Your task to perform on an android device: Is it going to rain today? Image 0: 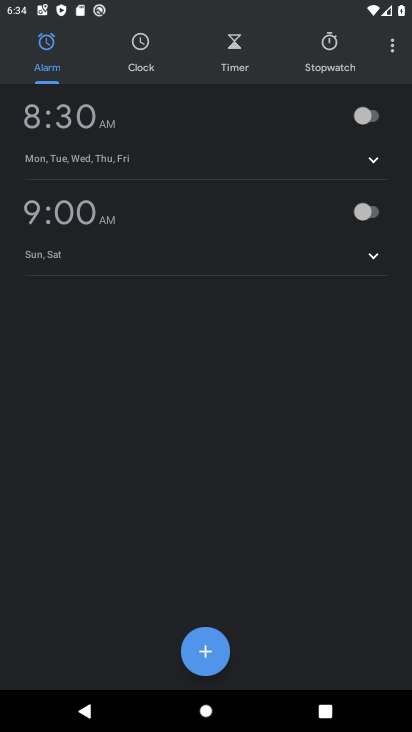
Step 0: press home button
Your task to perform on an android device: Is it going to rain today? Image 1: 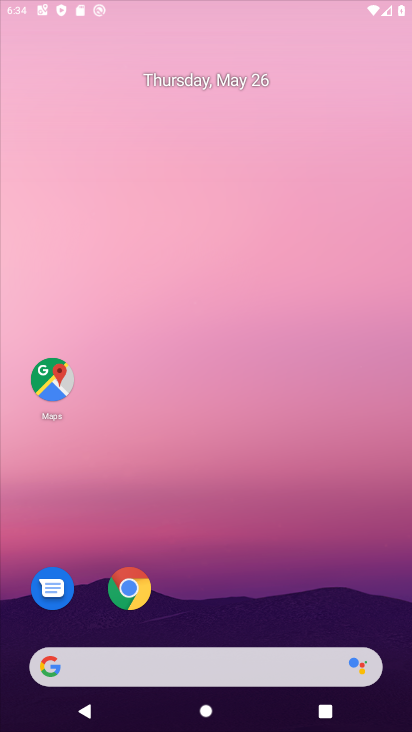
Step 1: drag from (368, 635) to (277, 14)
Your task to perform on an android device: Is it going to rain today? Image 2: 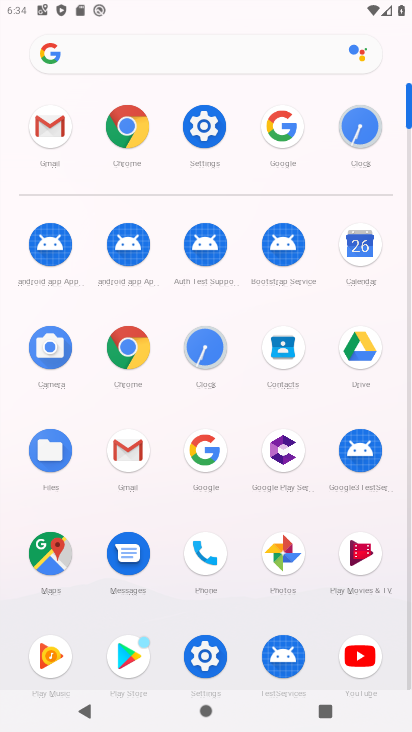
Step 2: click (201, 464)
Your task to perform on an android device: Is it going to rain today? Image 3: 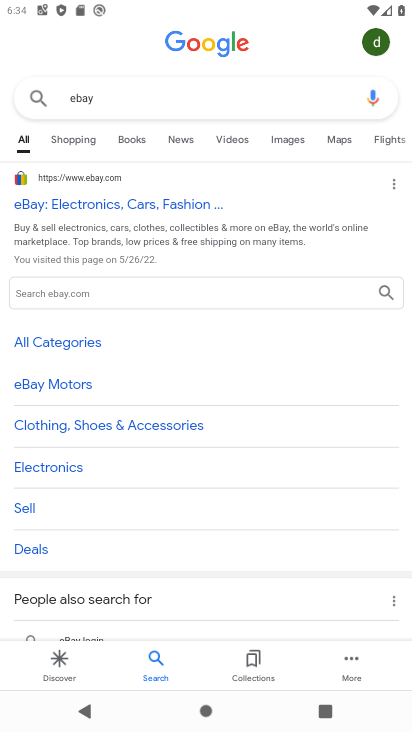
Step 3: press back button
Your task to perform on an android device: Is it going to rain today? Image 4: 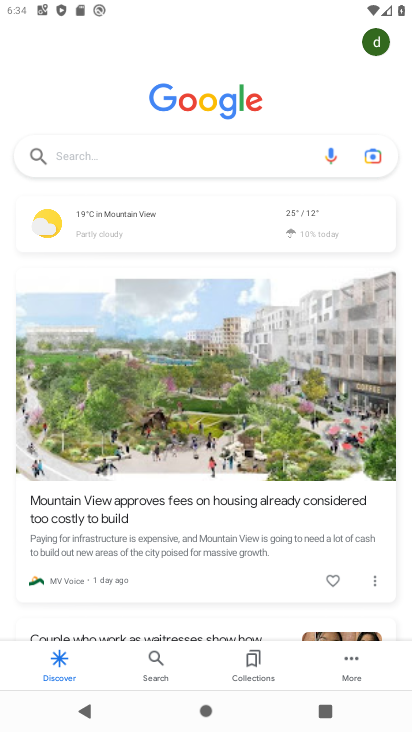
Step 4: click (142, 164)
Your task to perform on an android device: Is it going to rain today? Image 5: 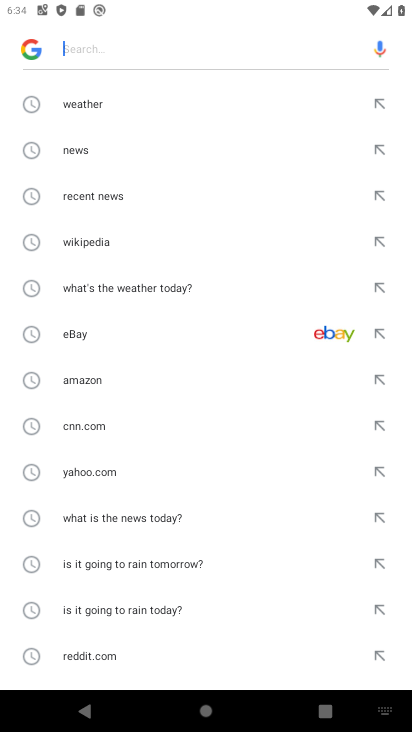
Step 5: click (167, 610)
Your task to perform on an android device: Is it going to rain today? Image 6: 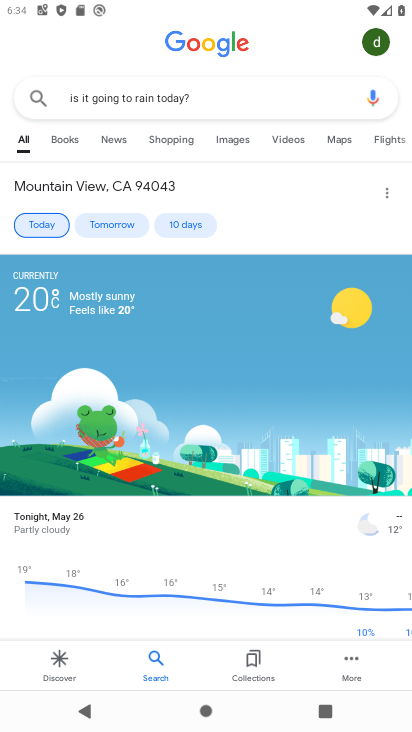
Step 6: task complete